Your task to perform on an android device: Is it going to rain this weekend? Image 0: 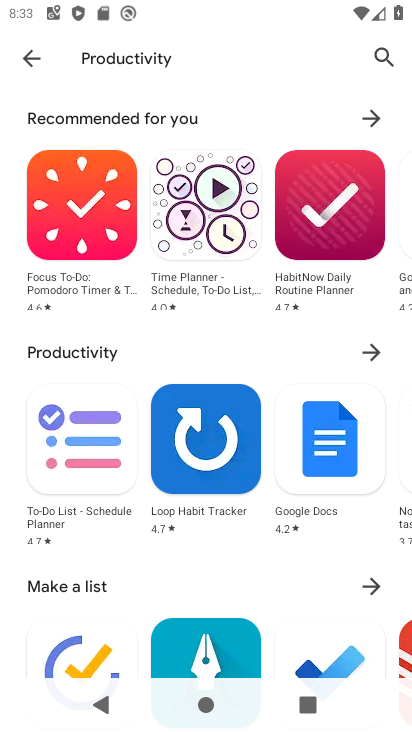
Step 0: press home button
Your task to perform on an android device: Is it going to rain this weekend? Image 1: 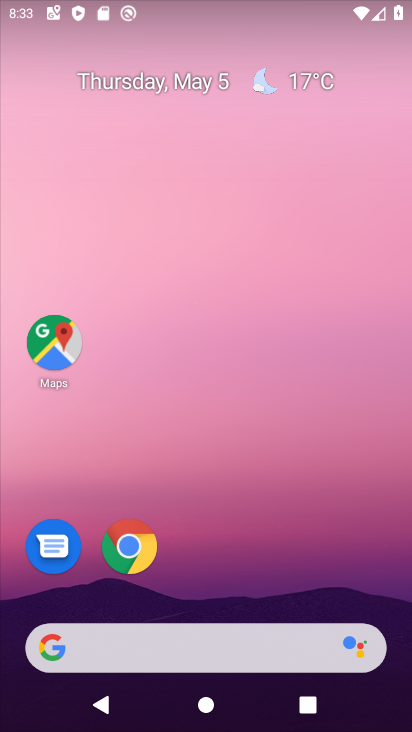
Step 1: drag from (171, 647) to (328, 66)
Your task to perform on an android device: Is it going to rain this weekend? Image 2: 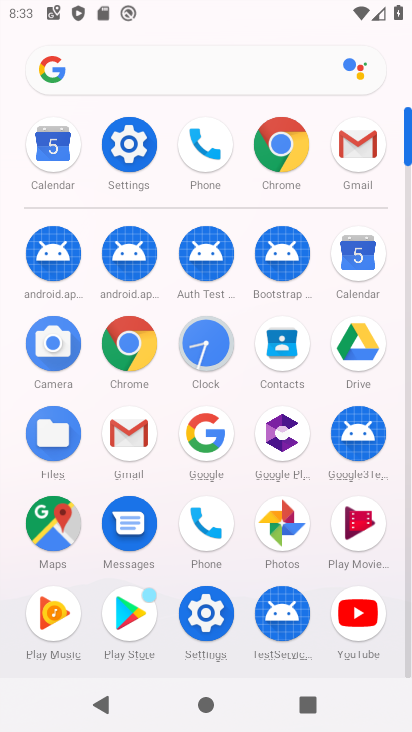
Step 2: press home button
Your task to perform on an android device: Is it going to rain this weekend? Image 3: 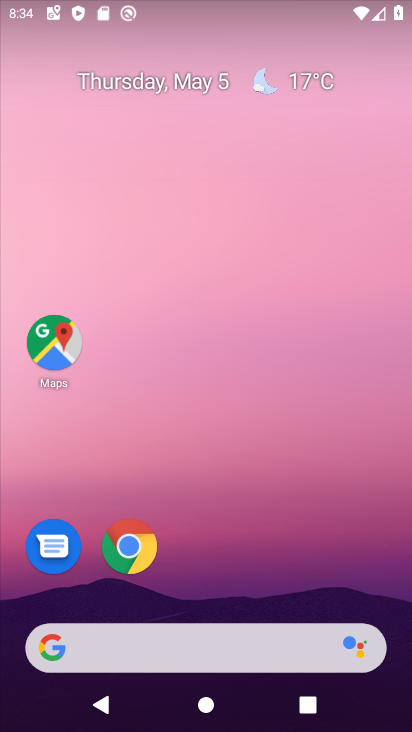
Step 3: click (309, 85)
Your task to perform on an android device: Is it going to rain this weekend? Image 4: 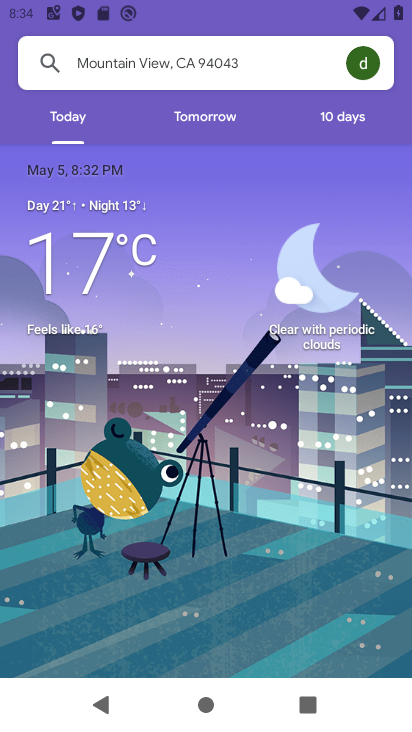
Step 4: click (346, 119)
Your task to perform on an android device: Is it going to rain this weekend? Image 5: 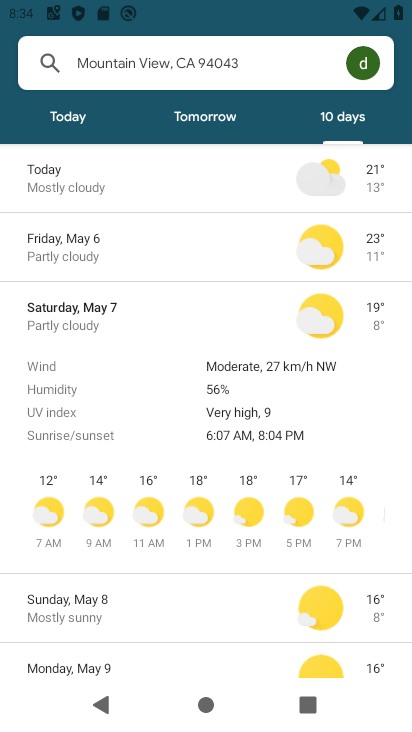
Step 5: task complete